Your task to perform on an android device: Open Google Maps and go to "Timeline" Image 0: 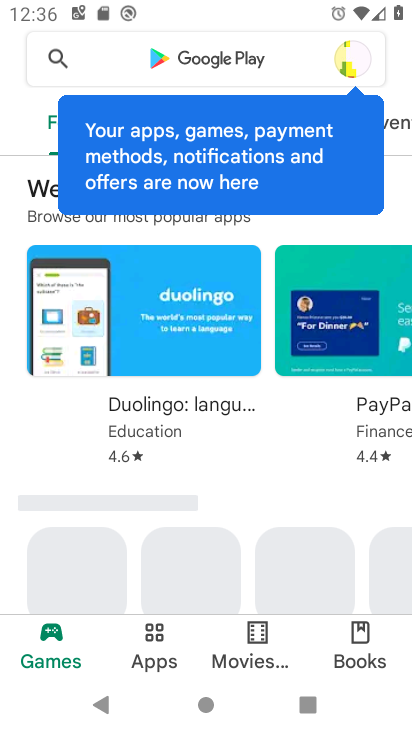
Step 0: press home button
Your task to perform on an android device: Open Google Maps and go to "Timeline" Image 1: 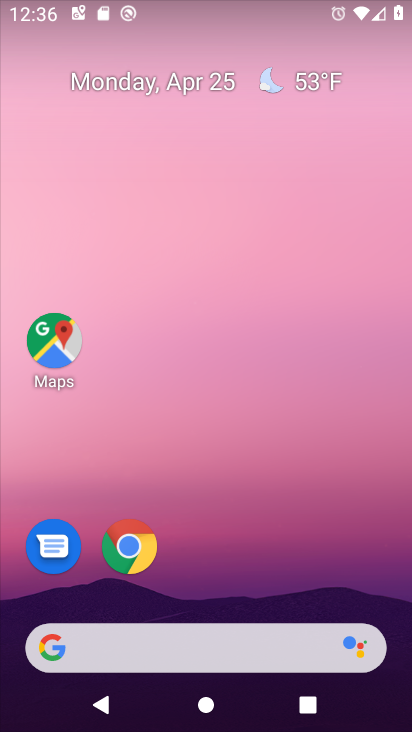
Step 1: click (61, 352)
Your task to perform on an android device: Open Google Maps and go to "Timeline" Image 2: 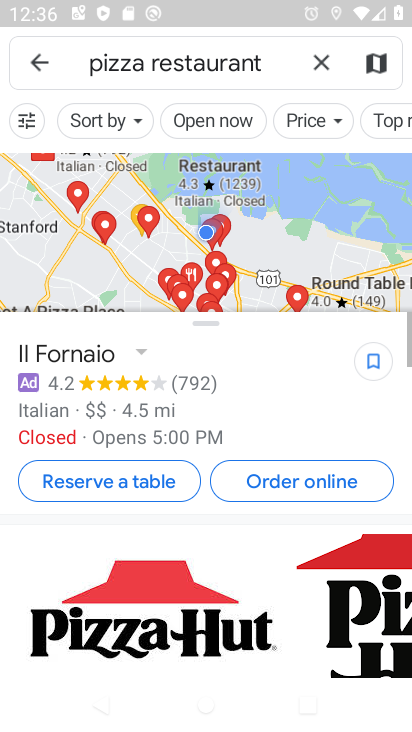
Step 2: click (44, 60)
Your task to perform on an android device: Open Google Maps and go to "Timeline" Image 3: 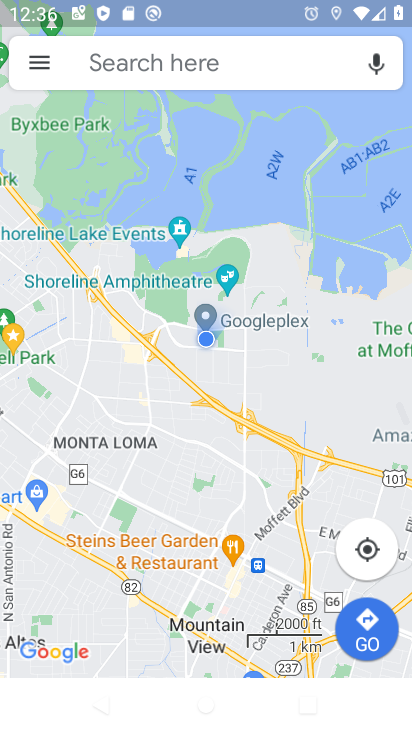
Step 3: click (44, 60)
Your task to perform on an android device: Open Google Maps and go to "Timeline" Image 4: 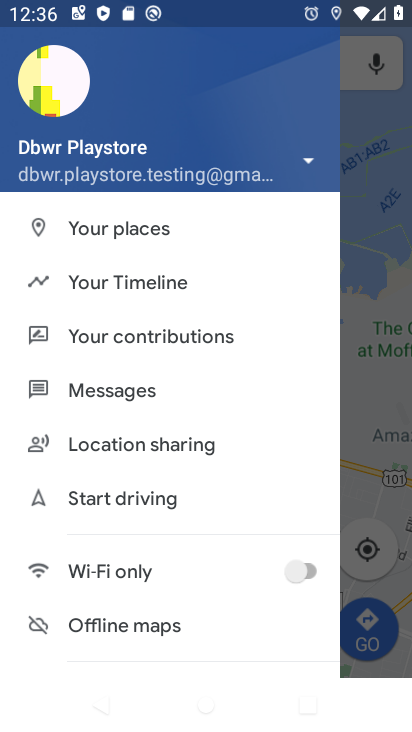
Step 4: click (124, 287)
Your task to perform on an android device: Open Google Maps and go to "Timeline" Image 5: 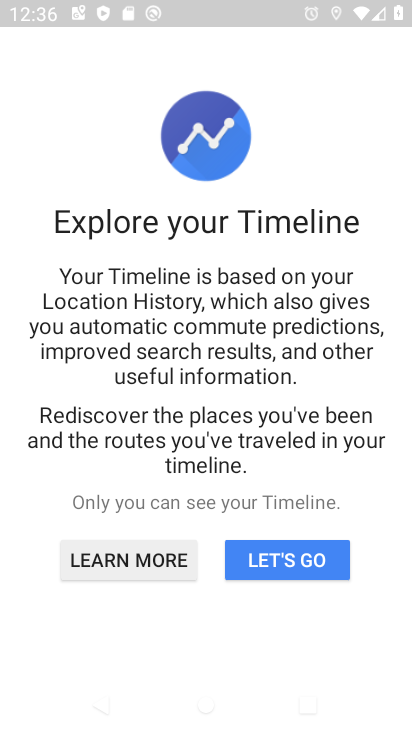
Step 5: click (321, 557)
Your task to perform on an android device: Open Google Maps and go to "Timeline" Image 6: 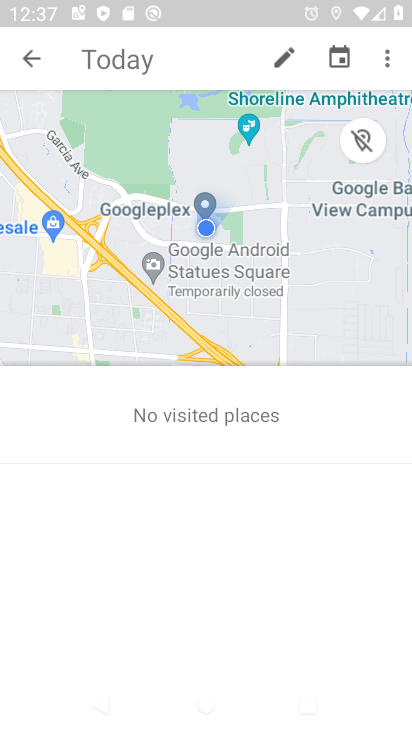
Step 6: task complete